Your task to perform on an android device: Open Reddit Image 0: 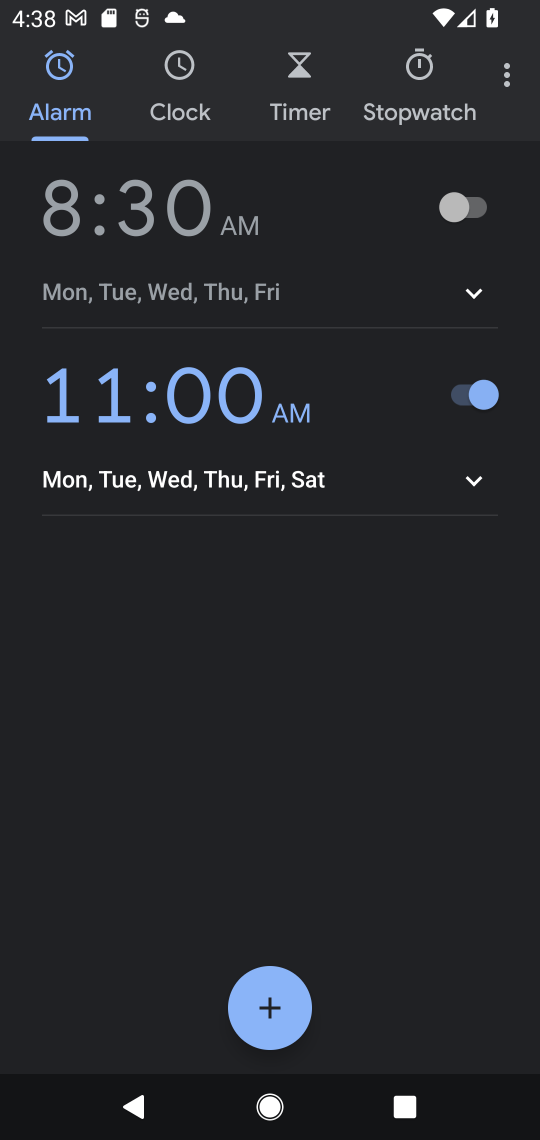
Step 0: press home button
Your task to perform on an android device: Open Reddit Image 1: 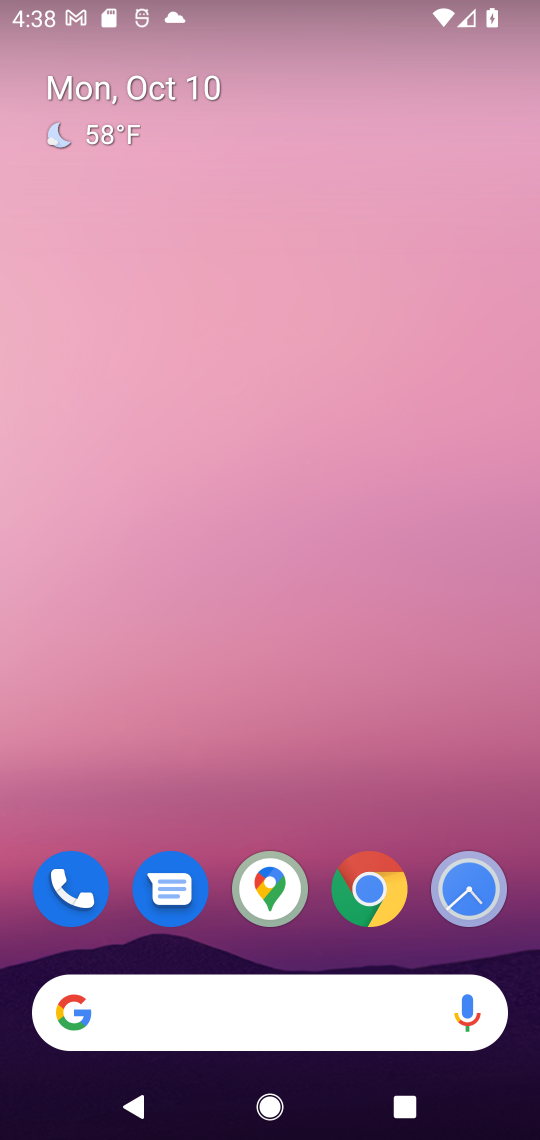
Step 1: click (368, 892)
Your task to perform on an android device: Open Reddit Image 2: 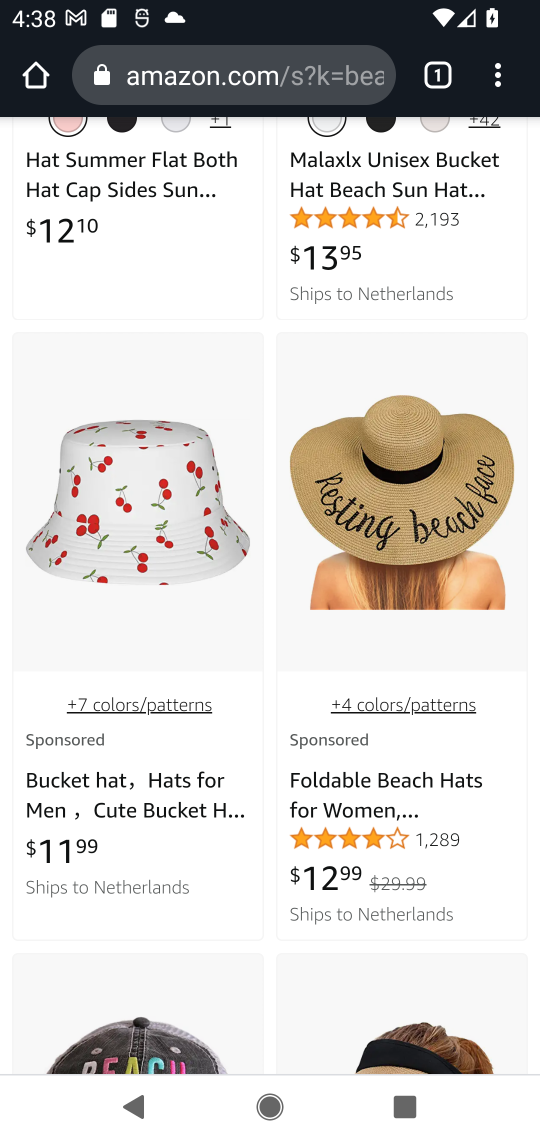
Step 2: click (210, 52)
Your task to perform on an android device: Open Reddit Image 3: 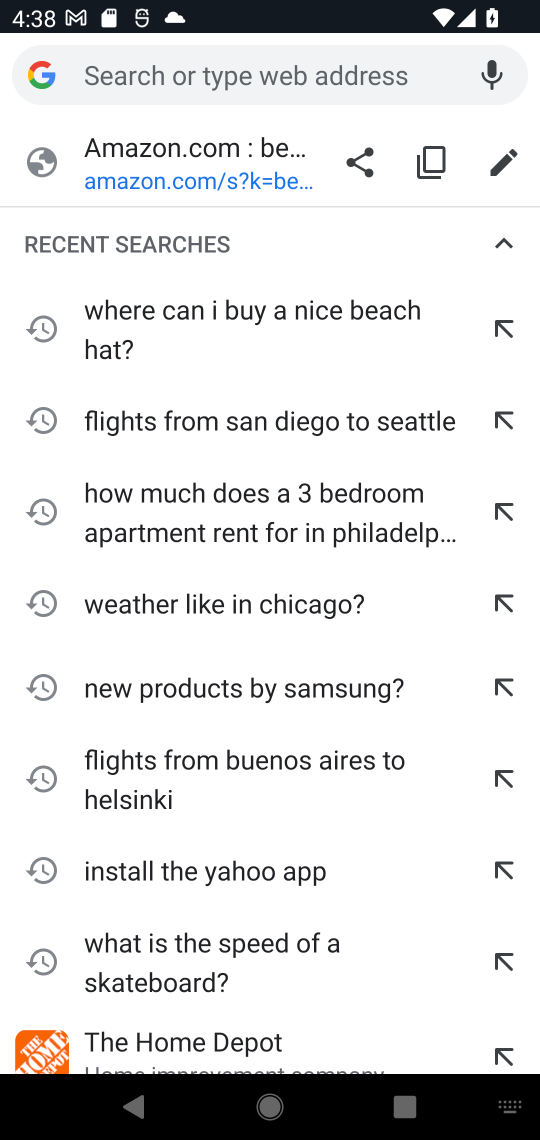
Step 3: type "reddit app"
Your task to perform on an android device: Open Reddit Image 4: 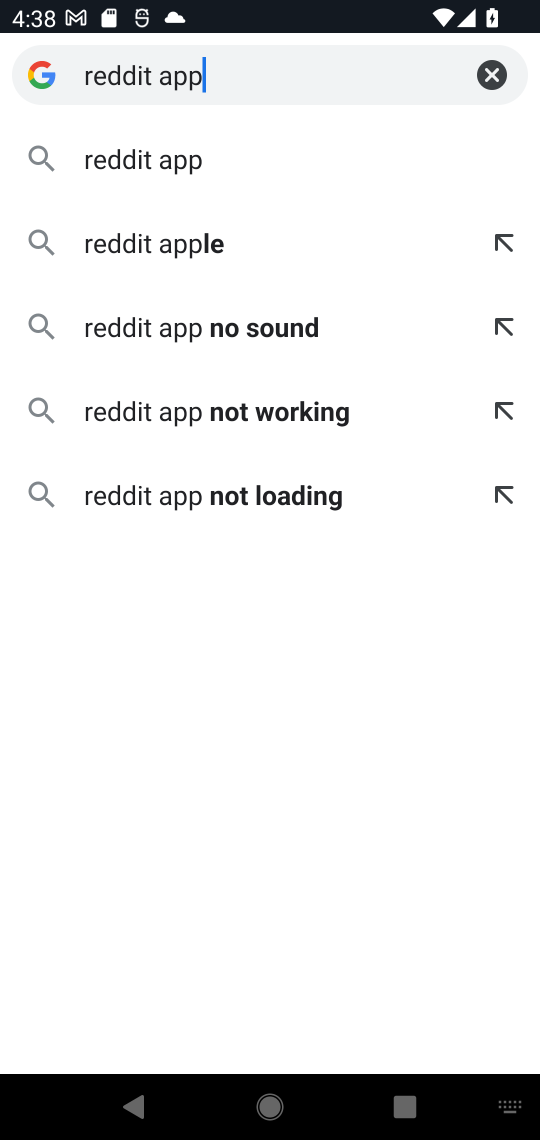
Step 4: click (149, 161)
Your task to perform on an android device: Open Reddit Image 5: 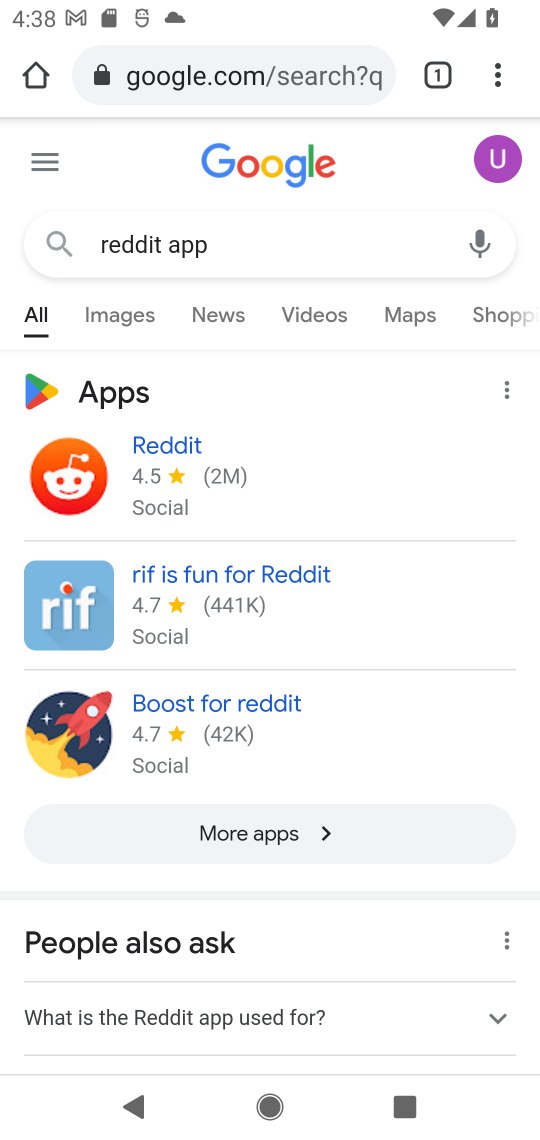
Step 5: click (153, 446)
Your task to perform on an android device: Open Reddit Image 6: 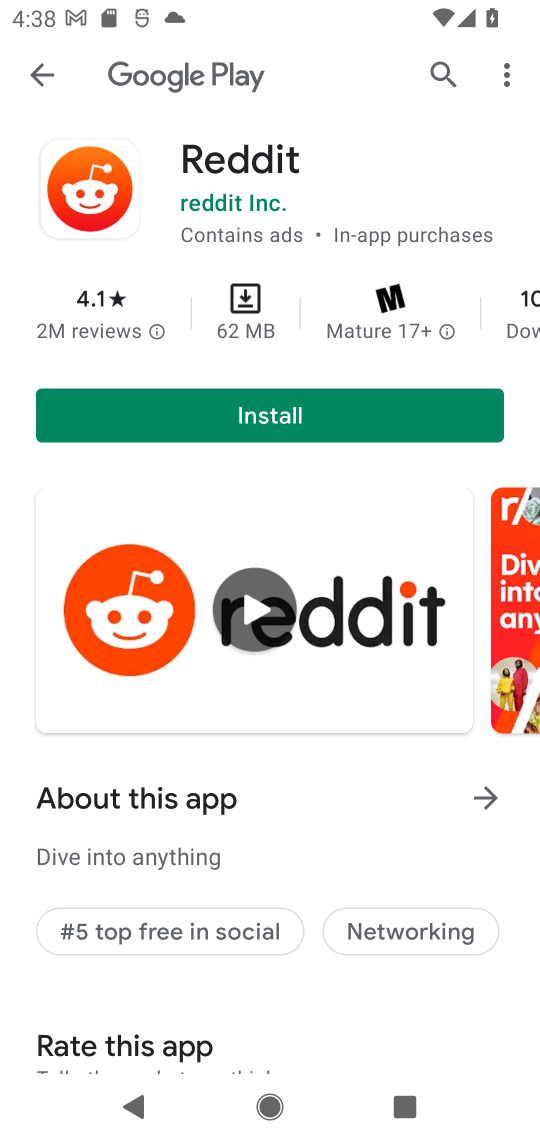
Step 6: click (272, 426)
Your task to perform on an android device: Open Reddit Image 7: 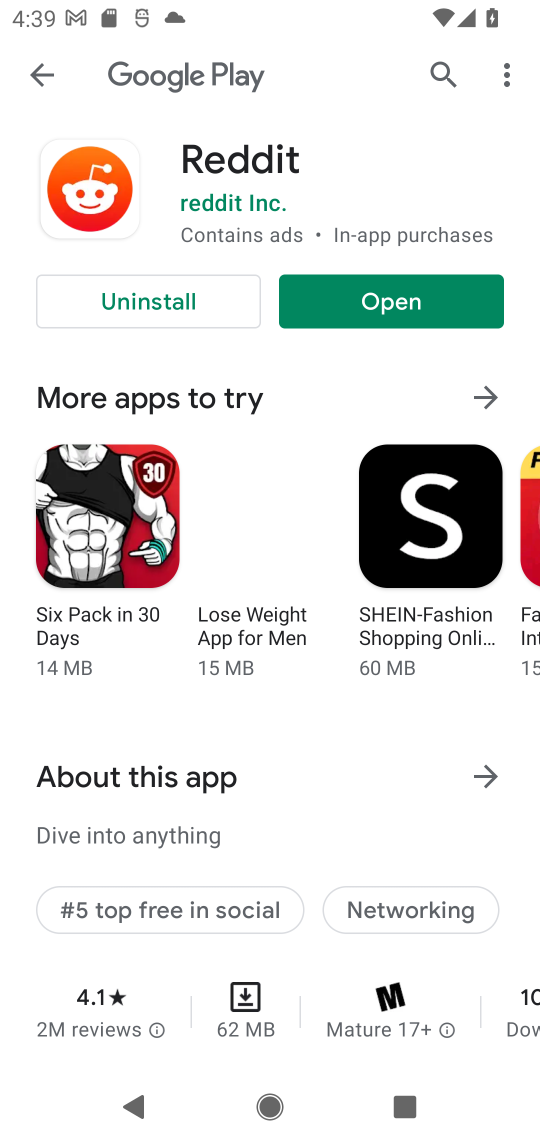
Step 7: click (380, 294)
Your task to perform on an android device: Open Reddit Image 8: 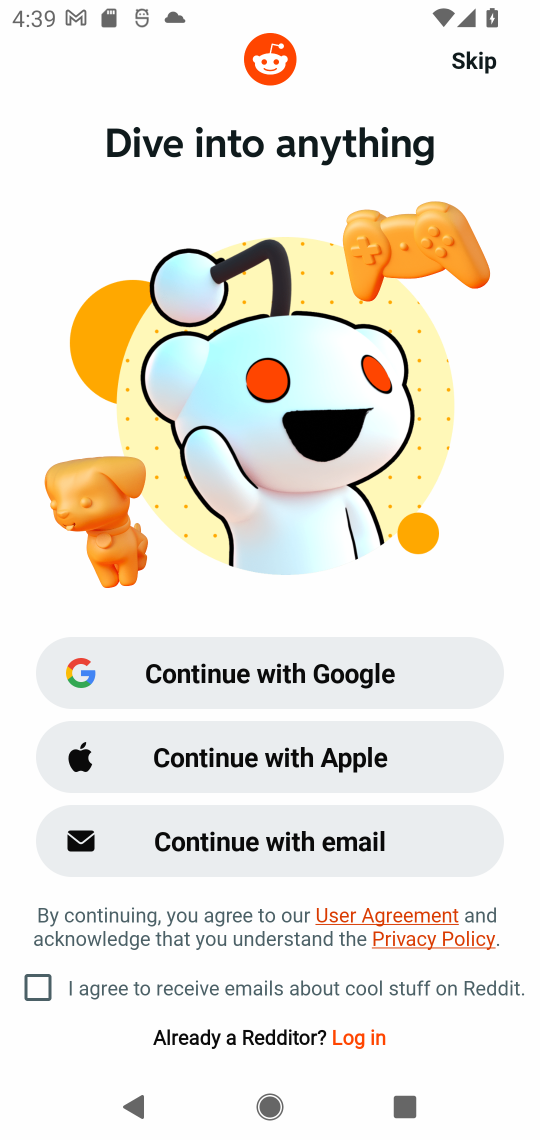
Step 8: click (480, 65)
Your task to perform on an android device: Open Reddit Image 9: 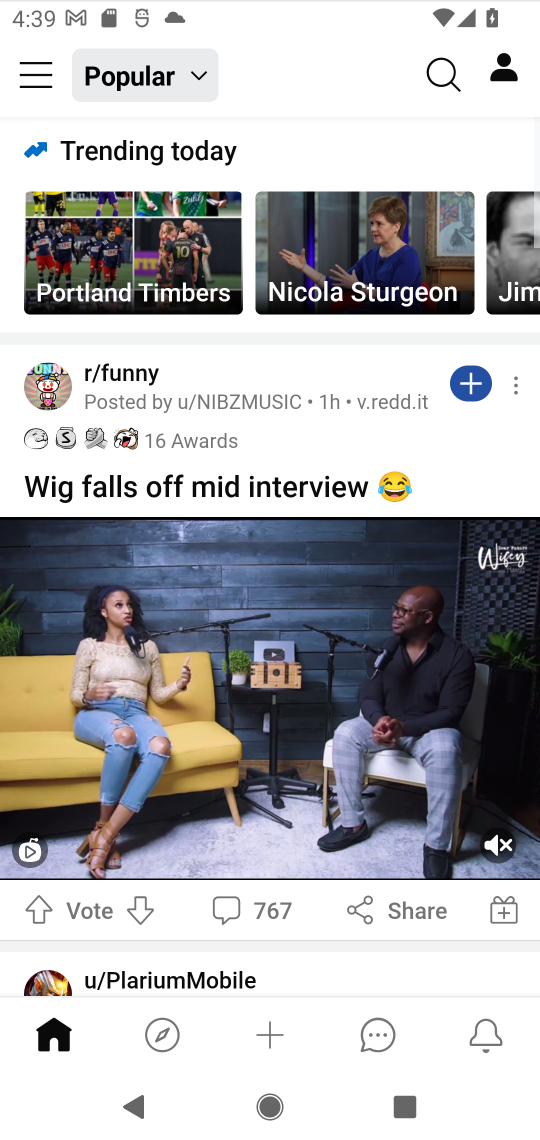
Step 9: task complete